Your task to perform on an android device: create a new album in the google photos Image 0: 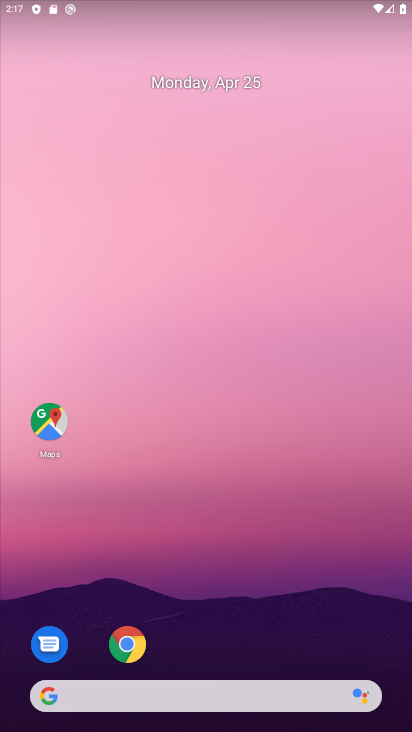
Step 0: drag from (270, 601) to (204, 94)
Your task to perform on an android device: create a new album in the google photos Image 1: 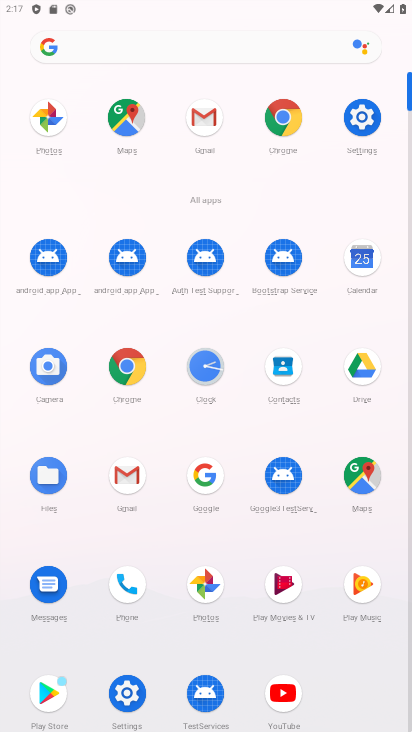
Step 1: click (44, 107)
Your task to perform on an android device: create a new album in the google photos Image 2: 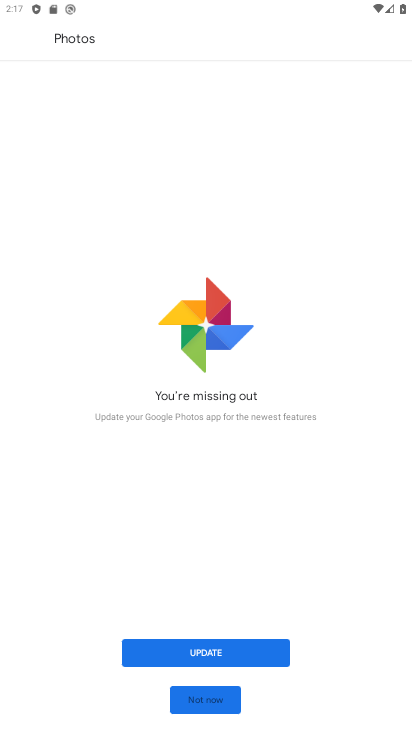
Step 2: click (214, 641)
Your task to perform on an android device: create a new album in the google photos Image 3: 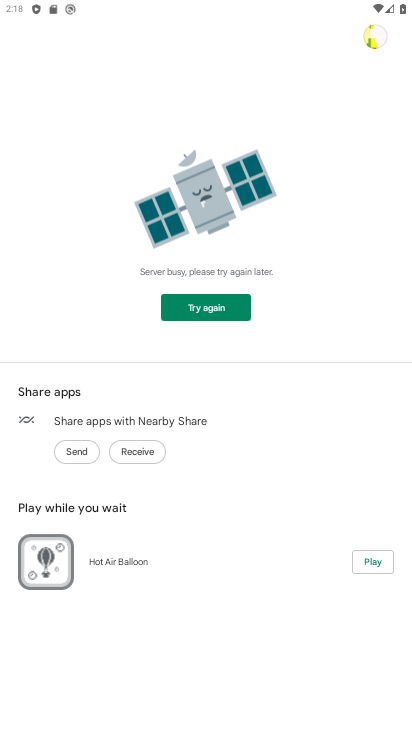
Step 3: click (218, 310)
Your task to perform on an android device: create a new album in the google photos Image 4: 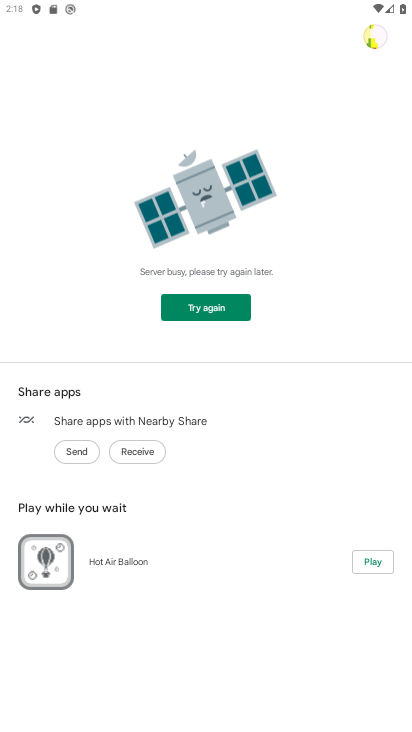
Step 4: task complete